Your task to perform on an android device: Open battery settings Image 0: 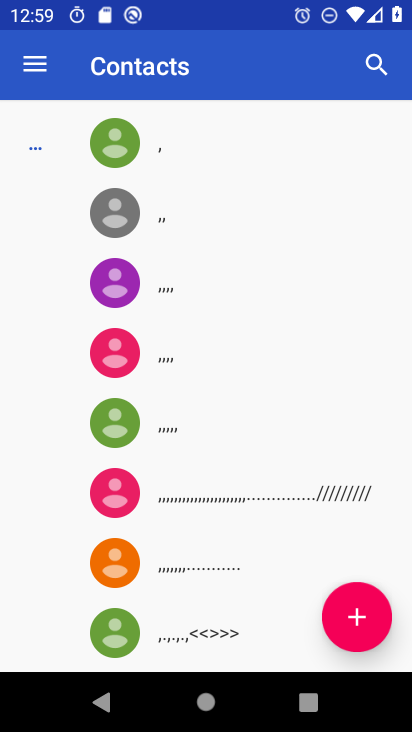
Step 0: press home button
Your task to perform on an android device: Open battery settings Image 1: 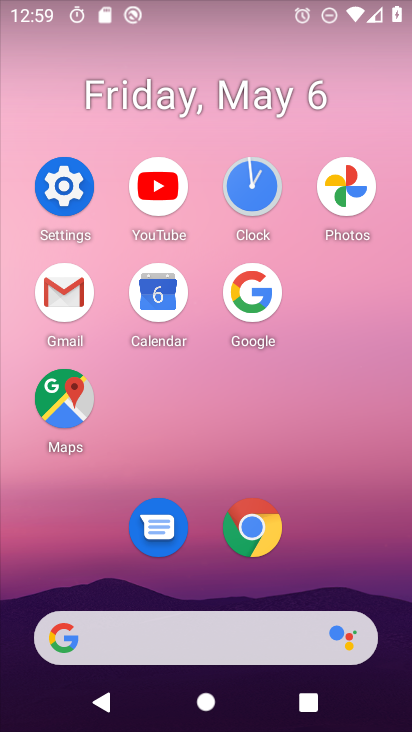
Step 1: click (59, 180)
Your task to perform on an android device: Open battery settings Image 2: 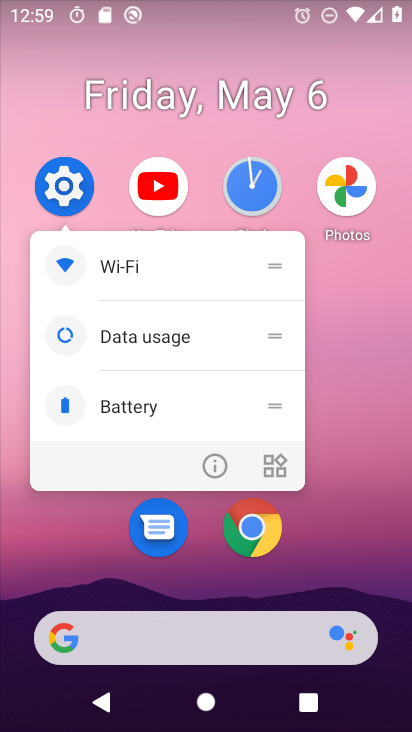
Step 2: click (70, 191)
Your task to perform on an android device: Open battery settings Image 3: 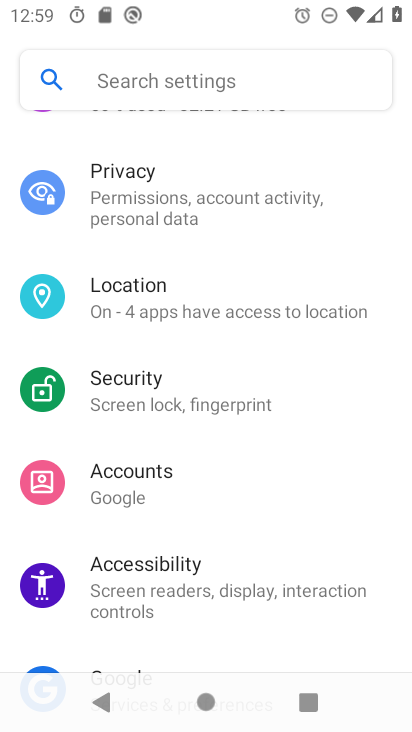
Step 3: drag from (292, 565) to (278, 140)
Your task to perform on an android device: Open battery settings Image 4: 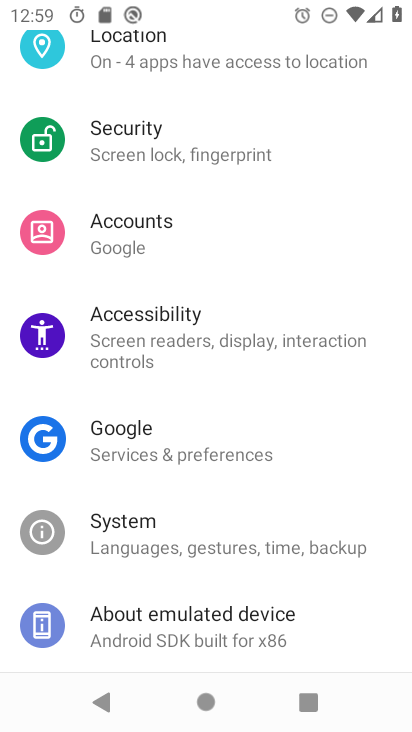
Step 4: drag from (308, 235) to (286, 696)
Your task to perform on an android device: Open battery settings Image 5: 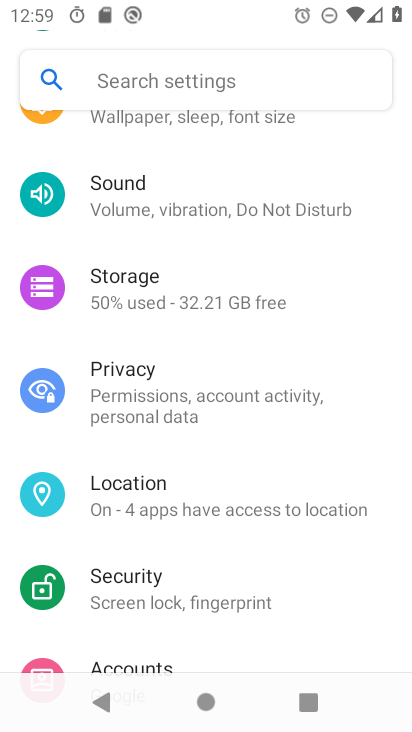
Step 5: drag from (277, 207) to (288, 595)
Your task to perform on an android device: Open battery settings Image 6: 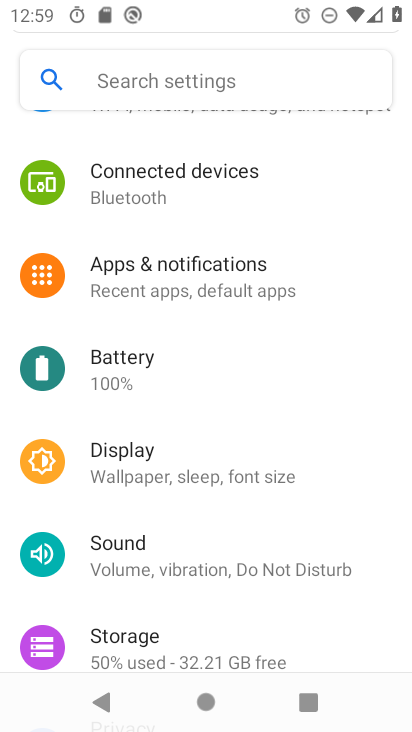
Step 6: click (205, 360)
Your task to perform on an android device: Open battery settings Image 7: 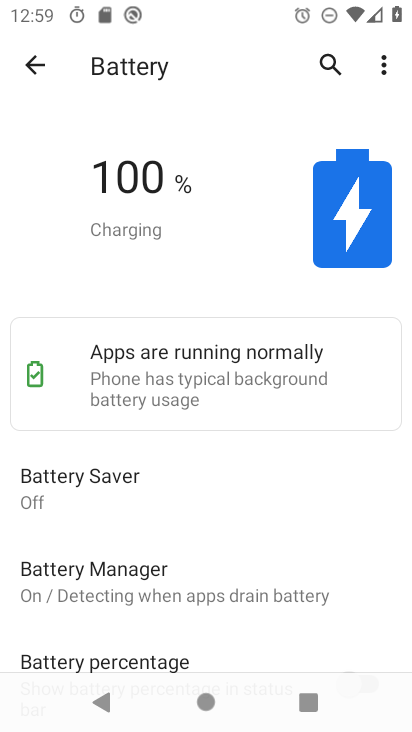
Step 7: task complete